Your task to perform on an android device: choose inbox layout in the gmail app Image 0: 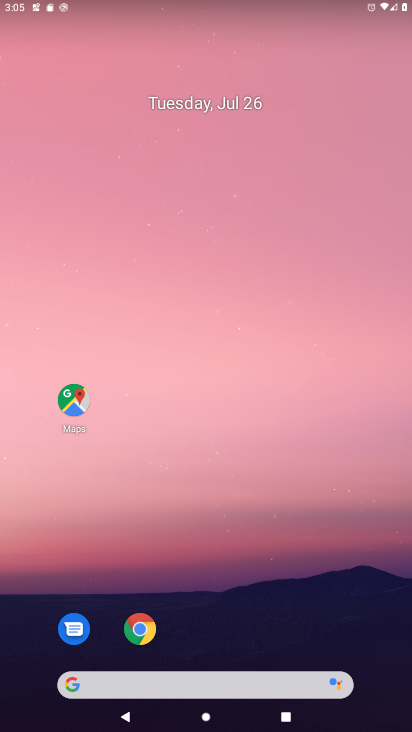
Step 0: drag from (192, 473) to (192, 119)
Your task to perform on an android device: choose inbox layout in the gmail app Image 1: 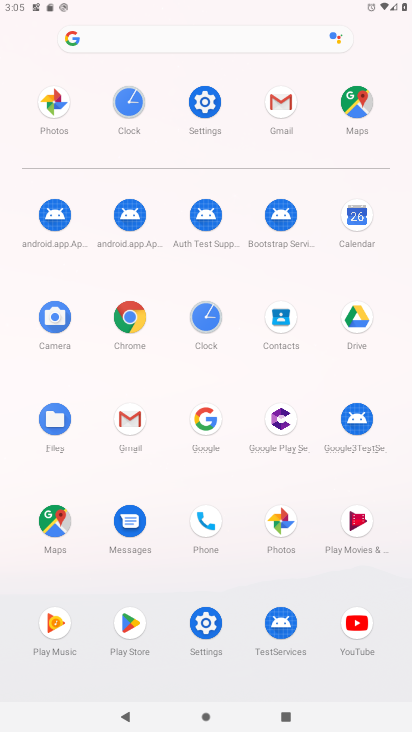
Step 1: click (311, 104)
Your task to perform on an android device: choose inbox layout in the gmail app Image 2: 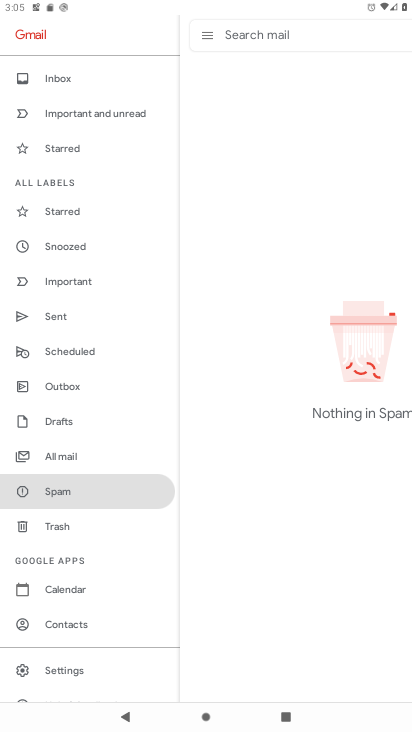
Step 2: click (76, 668)
Your task to perform on an android device: choose inbox layout in the gmail app Image 3: 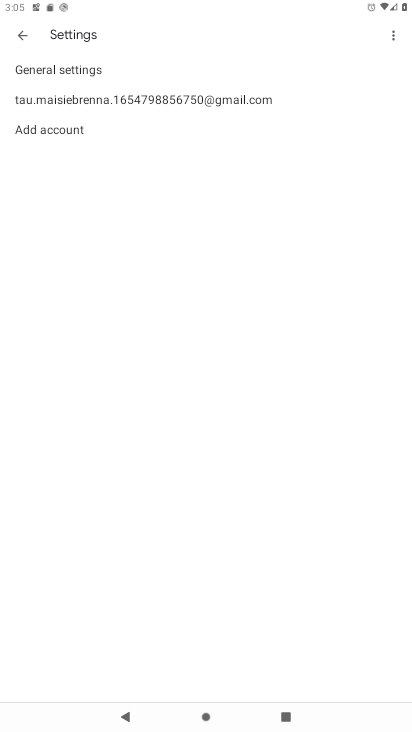
Step 3: click (149, 89)
Your task to perform on an android device: choose inbox layout in the gmail app Image 4: 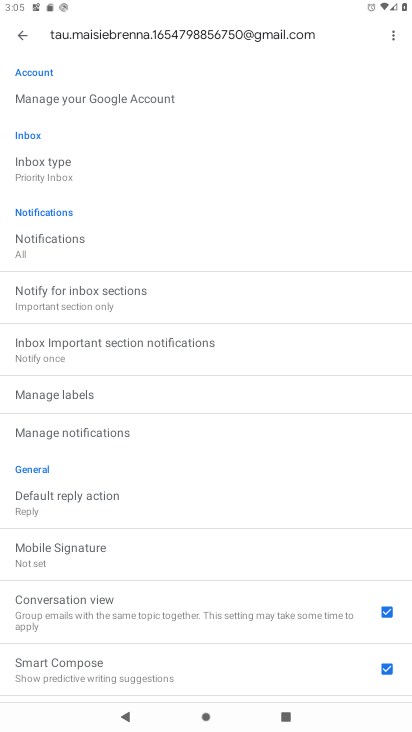
Step 4: click (111, 188)
Your task to perform on an android device: choose inbox layout in the gmail app Image 5: 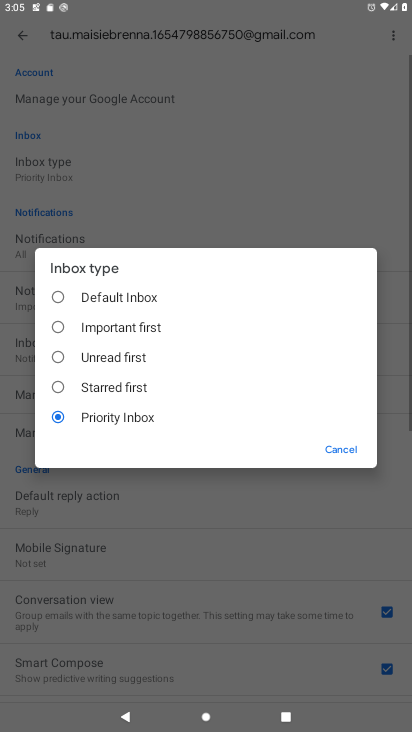
Step 5: click (101, 295)
Your task to perform on an android device: choose inbox layout in the gmail app Image 6: 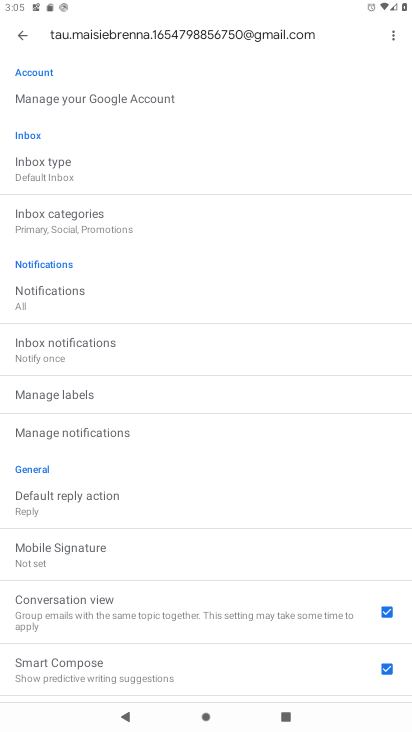
Step 6: click (90, 174)
Your task to perform on an android device: choose inbox layout in the gmail app Image 7: 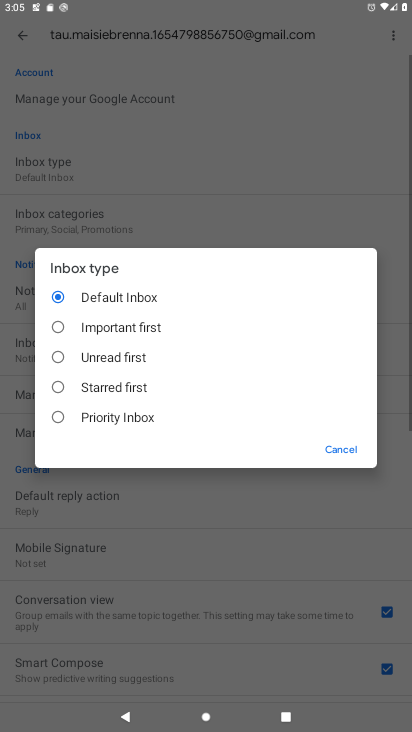
Step 7: click (106, 406)
Your task to perform on an android device: choose inbox layout in the gmail app Image 8: 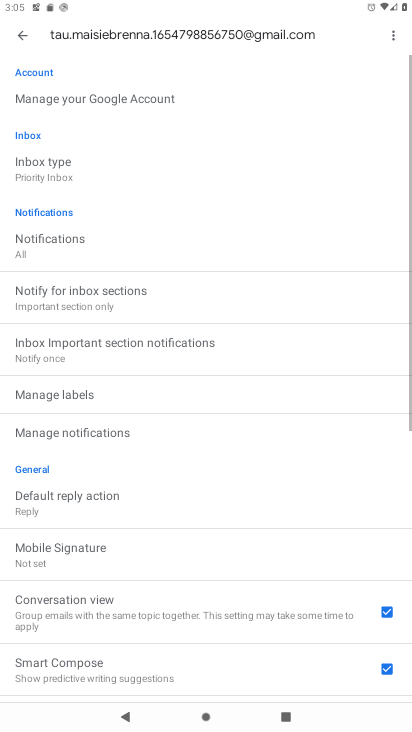
Step 8: task complete